Your task to perform on an android device: open app "ColorNote Notepad Notes" Image 0: 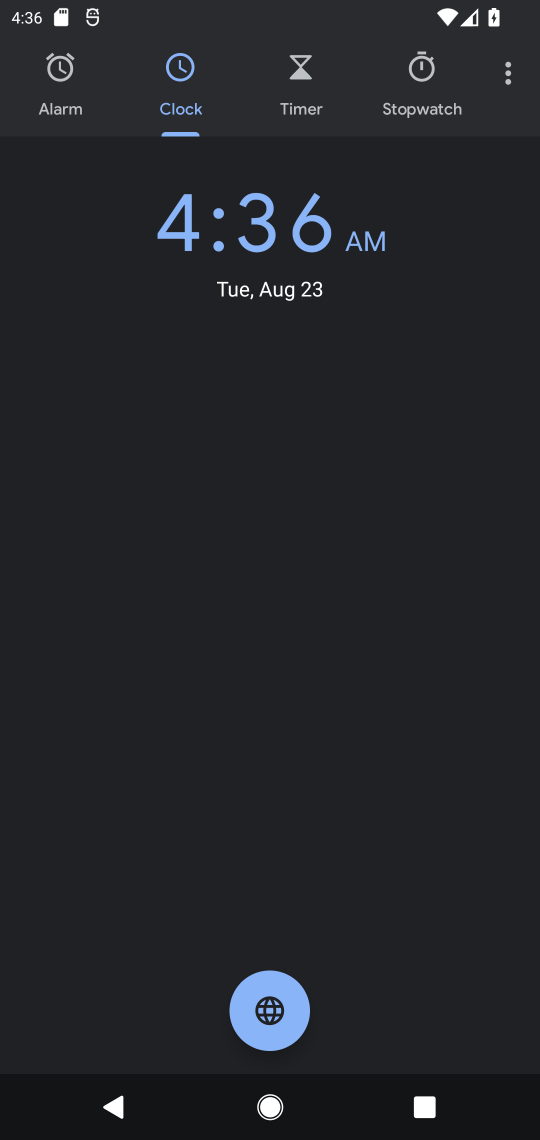
Step 0: click (270, 895)
Your task to perform on an android device: open app "ColorNote Notepad Notes" Image 1: 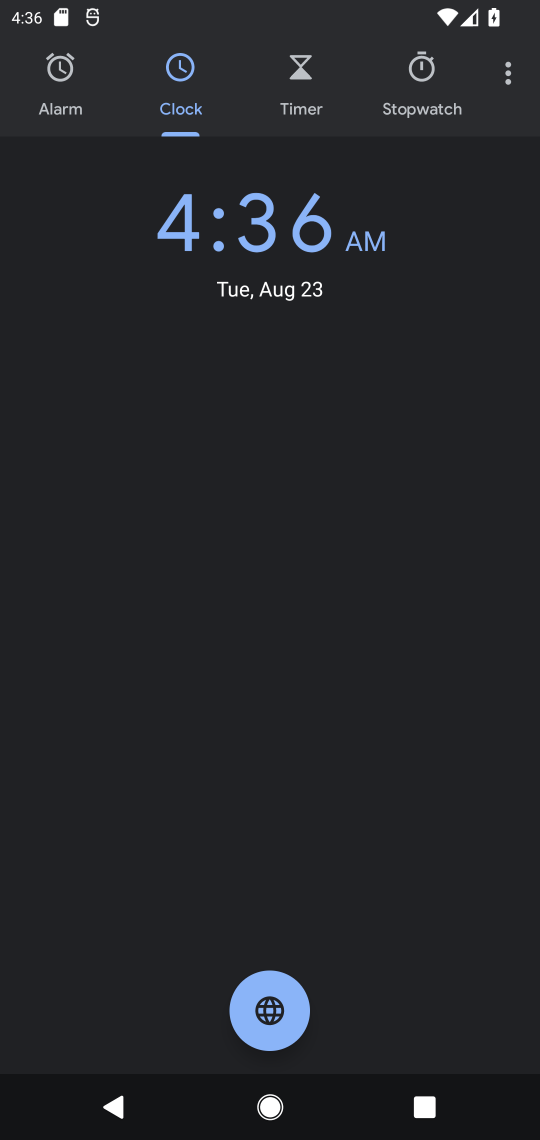
Step 1: press home button
Your task to perform on an android device: open app "ColorNote Notepad Notes" Image 2: 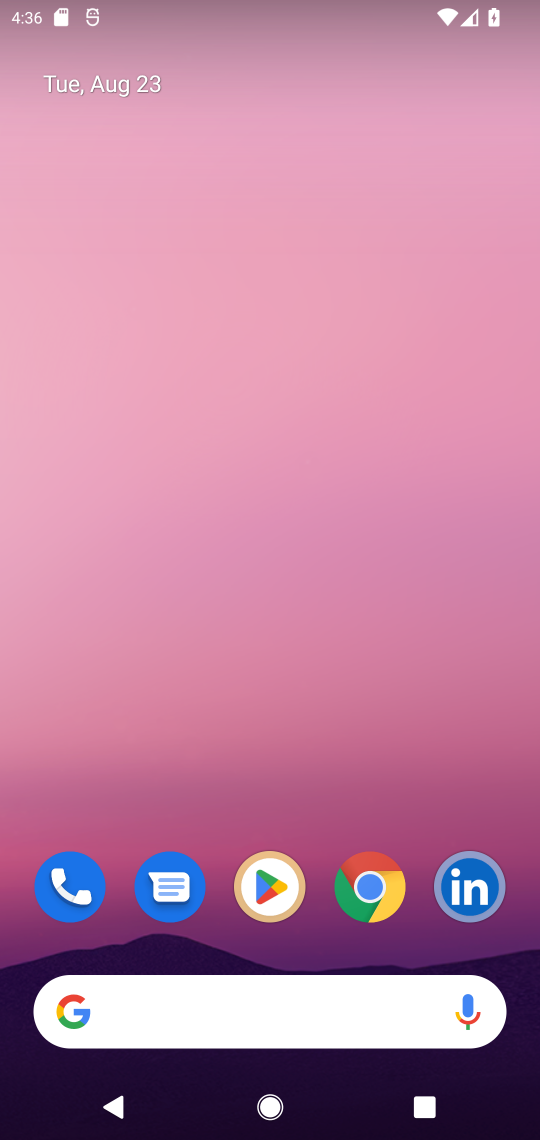
Step 2: click (257, 886)
Your task to perform on an android device: open app "ColorNote Notepad Notes" Image 3: 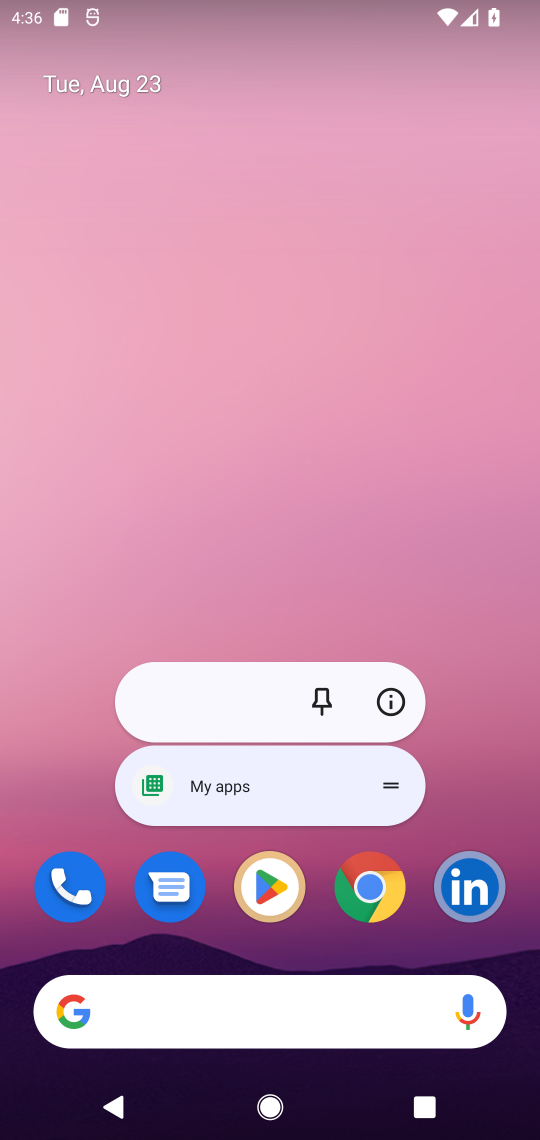
Step 3: click (257, 894)
Your task to perform on an android device: open app "ColorNote Notepad Notes" Image 4: 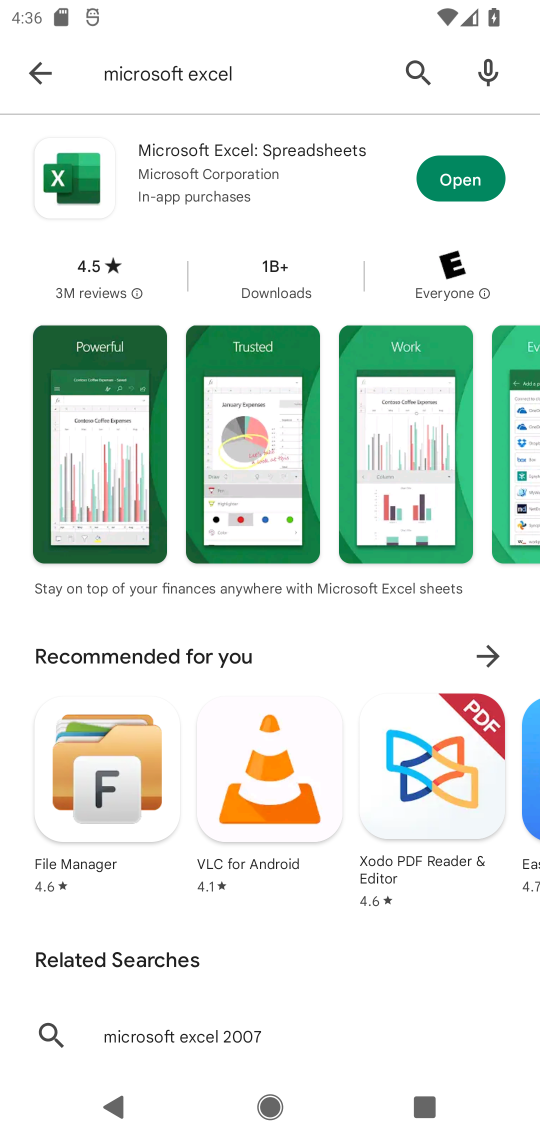
Step 4: click (29, 73)
Your task to perform on an android device: open app "ColorNote Notepad Notes" Image 5: 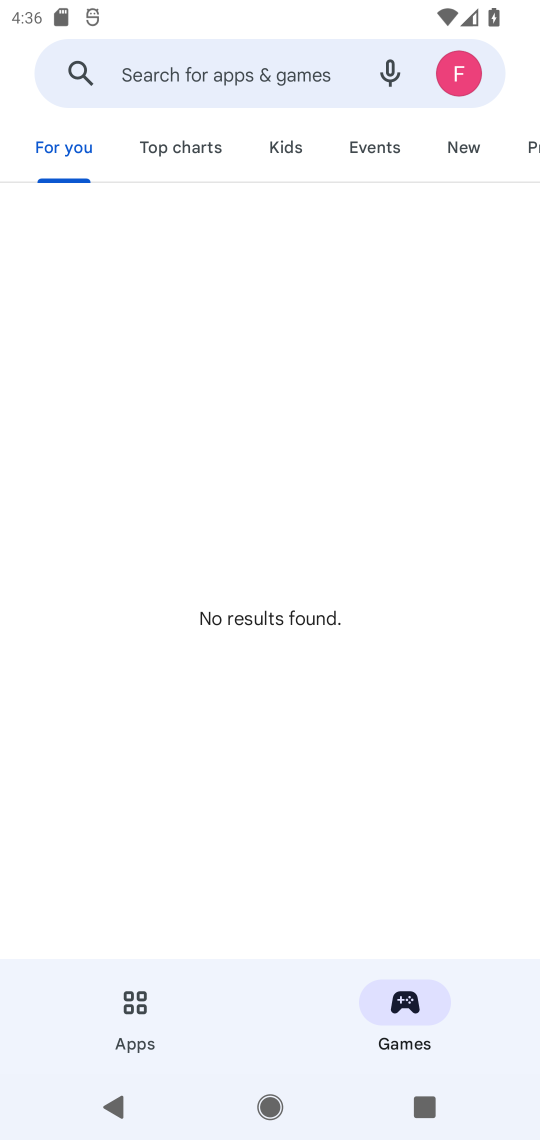
Step 5: click (134, 73)
Your task to perform on an android device: open app "ColorNote Notepad Notes" Image 6: 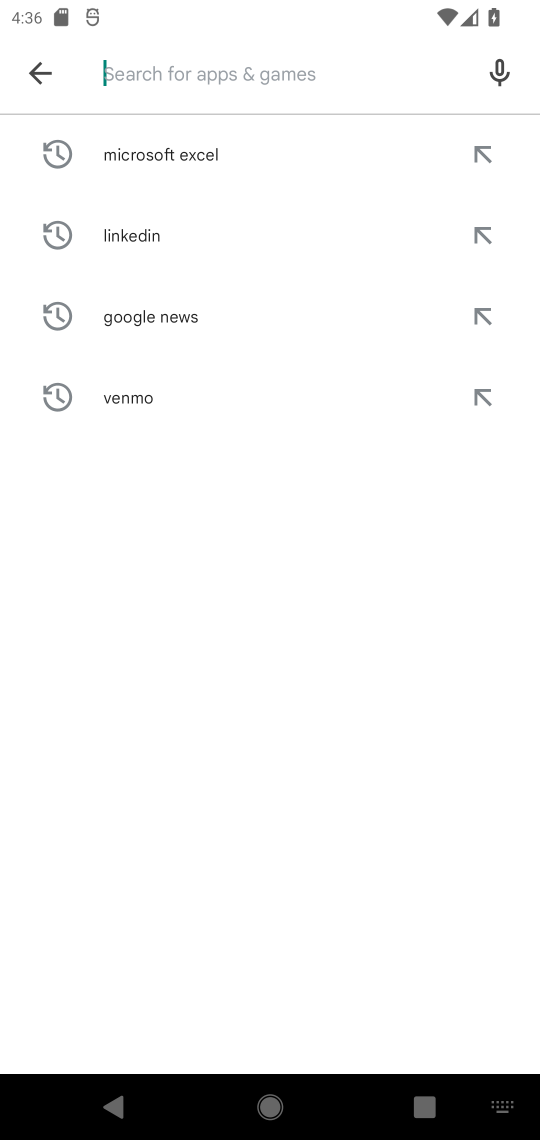
Step 6: type "ColorNote Notepad Notes"
Your task to perform on an android device: open app "ColorNote Notepad Notes" Image 7: 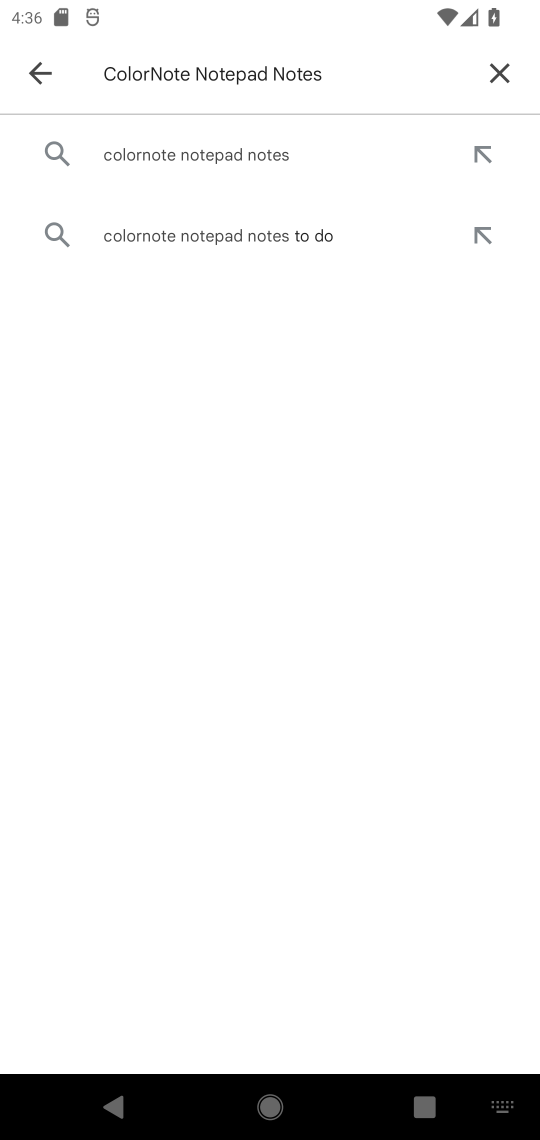
Step 7: click (144, 154)
Your task to perform on an android device: open app "ColorNote Notepad Notes" Image 8: 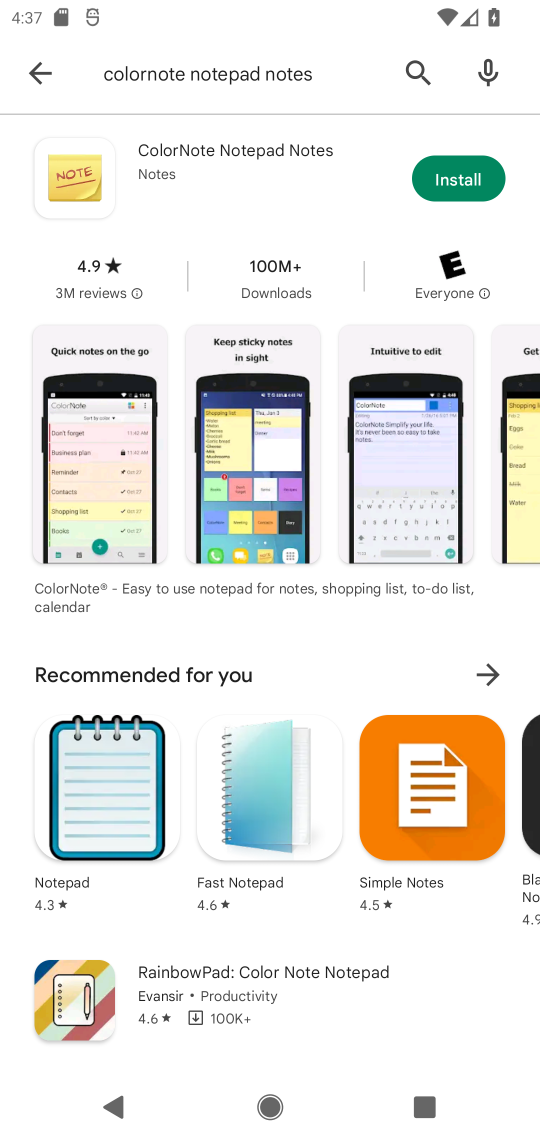
Step 8: click (448, 175)
Your task to perform on an android device: open app "ColorNote Notepad Notes" Image 9: 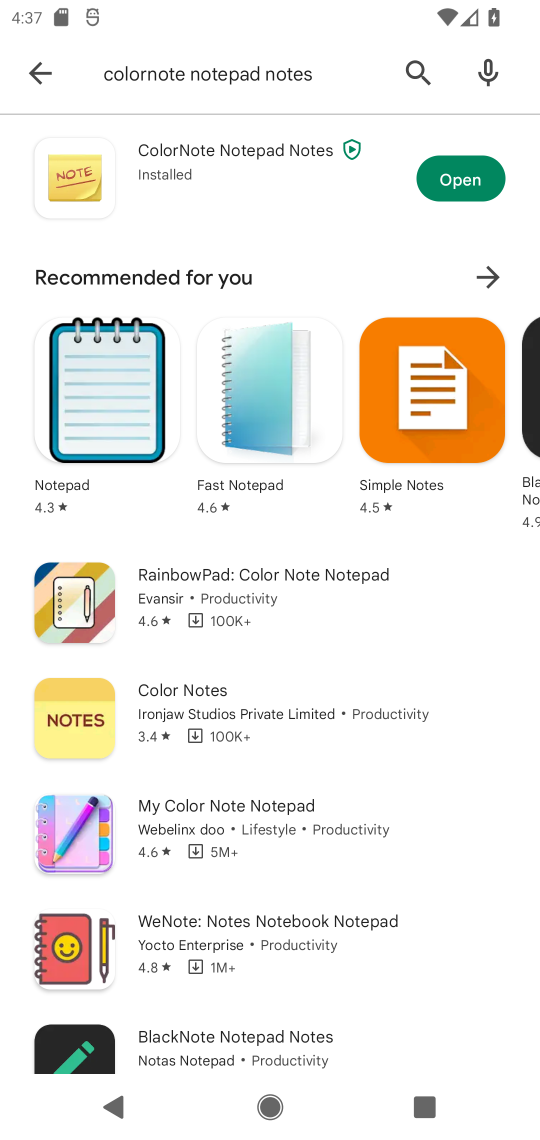
Step 9: click (448, 187)
Your task to perform on an android device: open app "ColorNote Notepad Notes" Image 10: 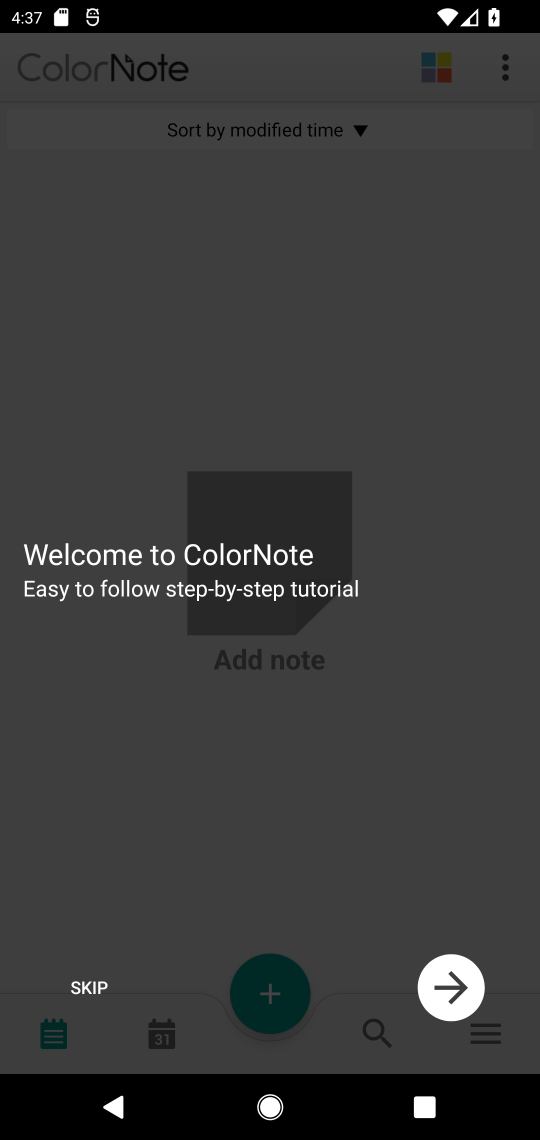
Step 10: task complete